Your task to perform on an android device: manage bookmarks in the chrome app Image 0: 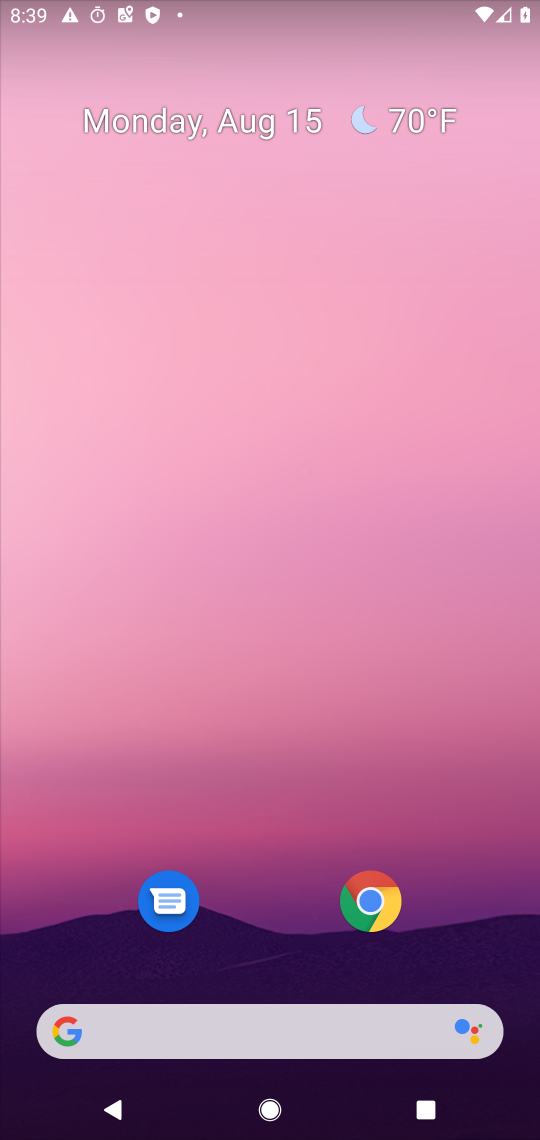
Step 0: click (341, 902)
Your task to perform on an android device: manage bookmarks in the chrome app Image 1: 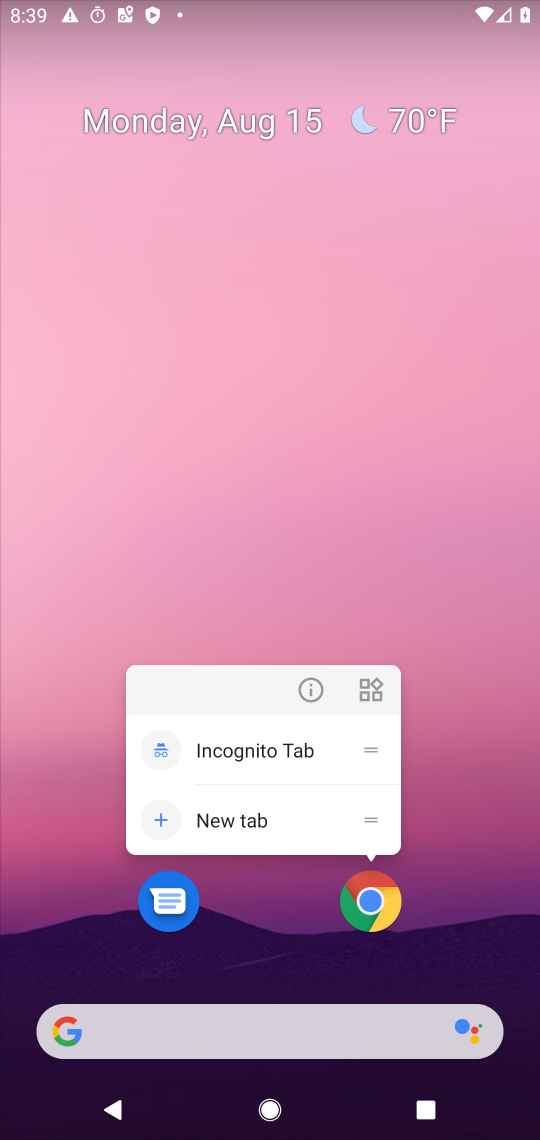
Step 1: click (393, 907)
Your task to perform on an android device: manage bookmarks in the chrome app Image 2: 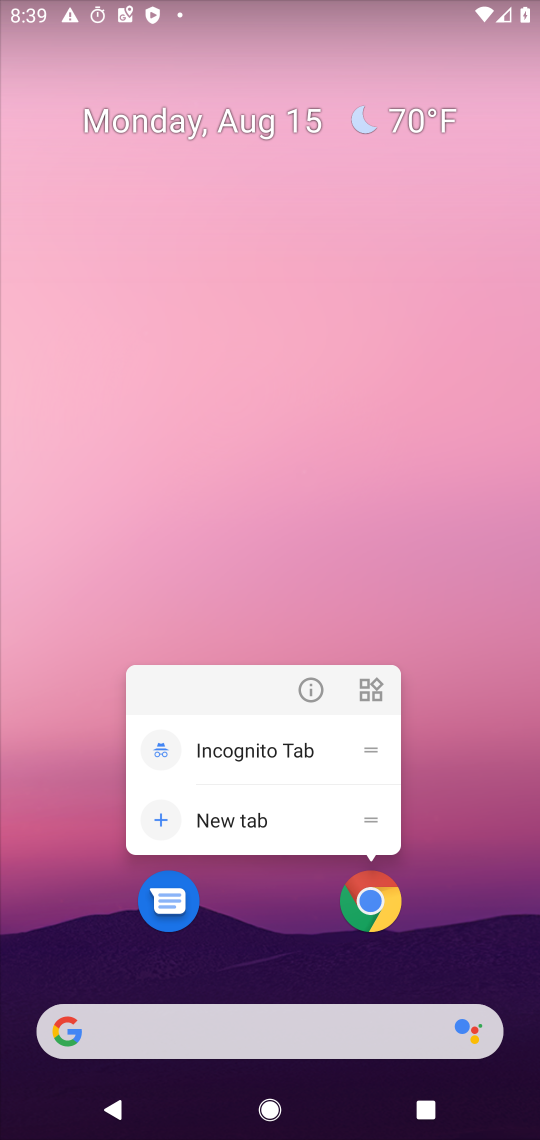
Step 2: click (392, 909)
Your task to perform on an android device: manage bookmarks in the chrome app Image 3: 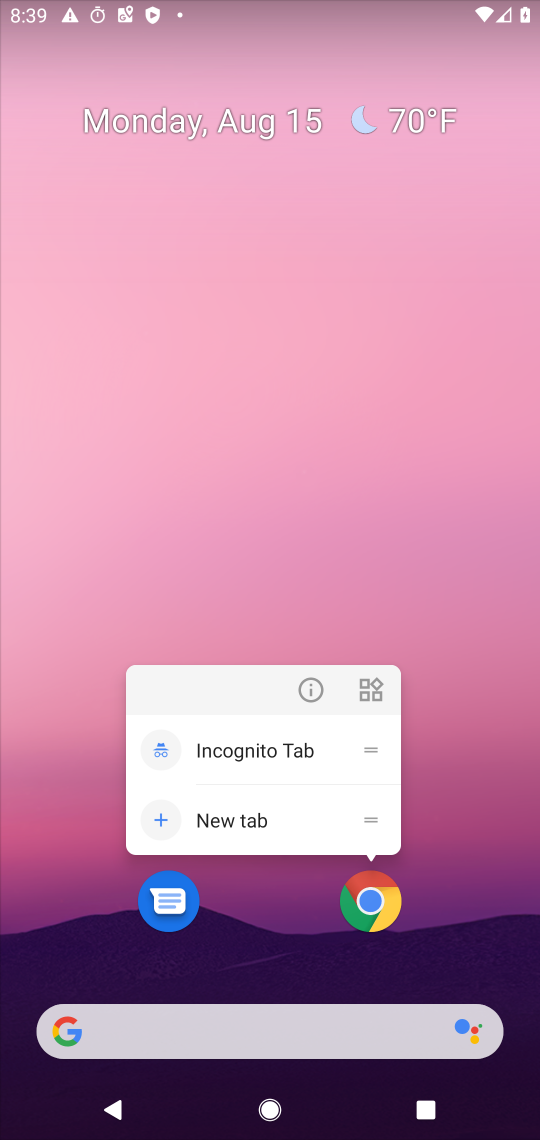
Step 3: click (376, 890)
Your task to perform on an android device: manage bookmarks in the chrome app Image 4: 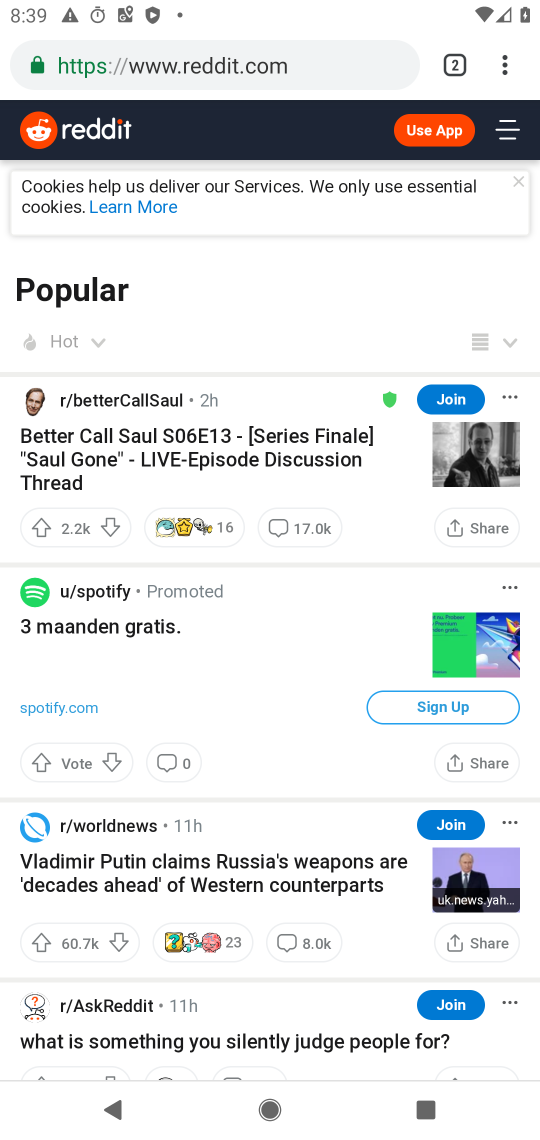
Step 4: click (507, 53)
Your task to perform on an android device: manage bookmarks in the chrome app Image 5: 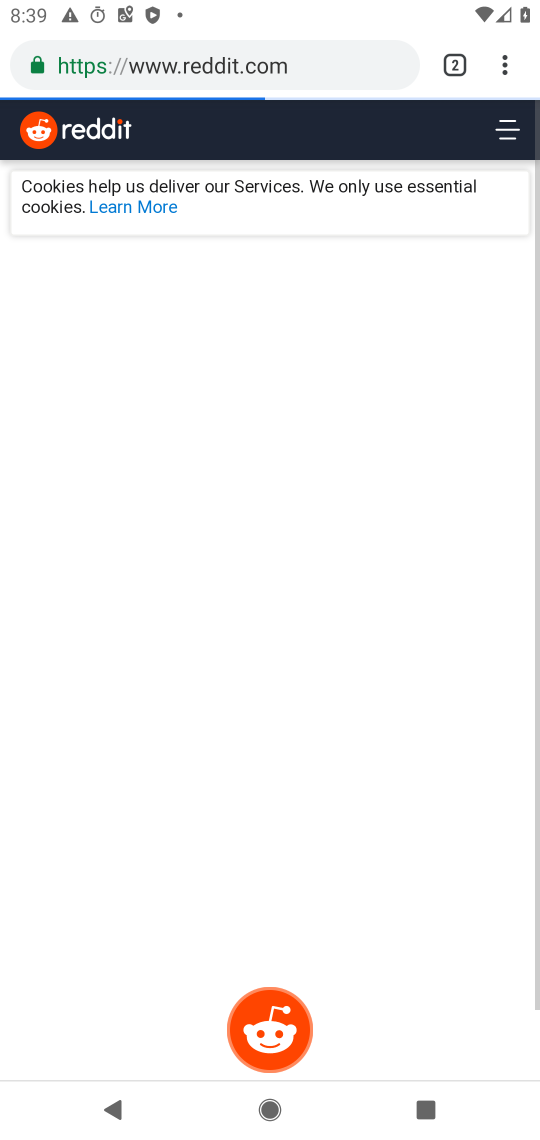
Step 5: click (507, 64)
Your task to perform on an android device: manage bookmarks in the chrome app Image 6: 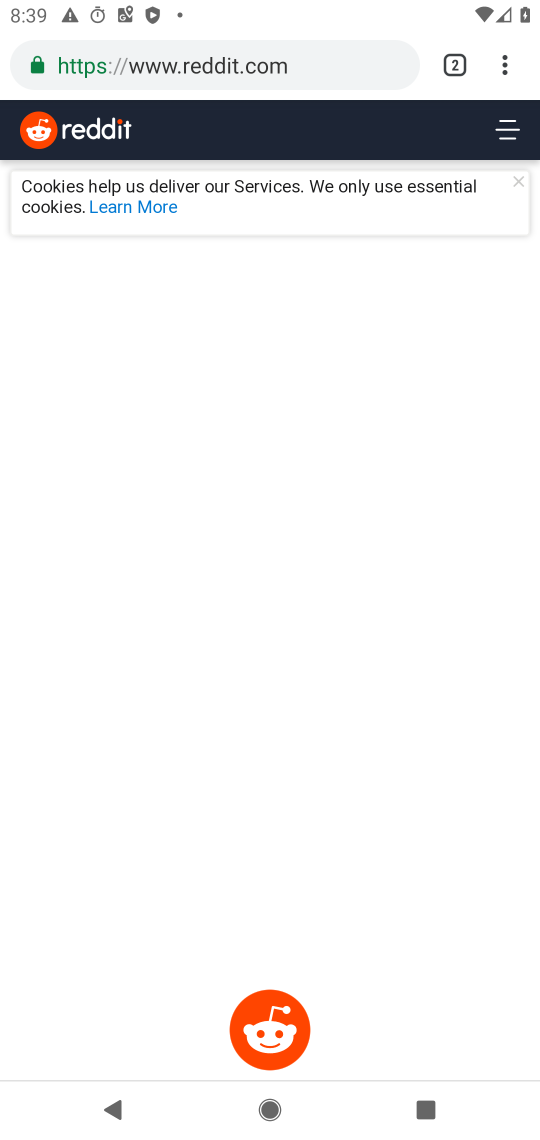
Step 6: click (498, 70)
Your task to perform on an android device: manage bookmarks in the chrome app Image 7: 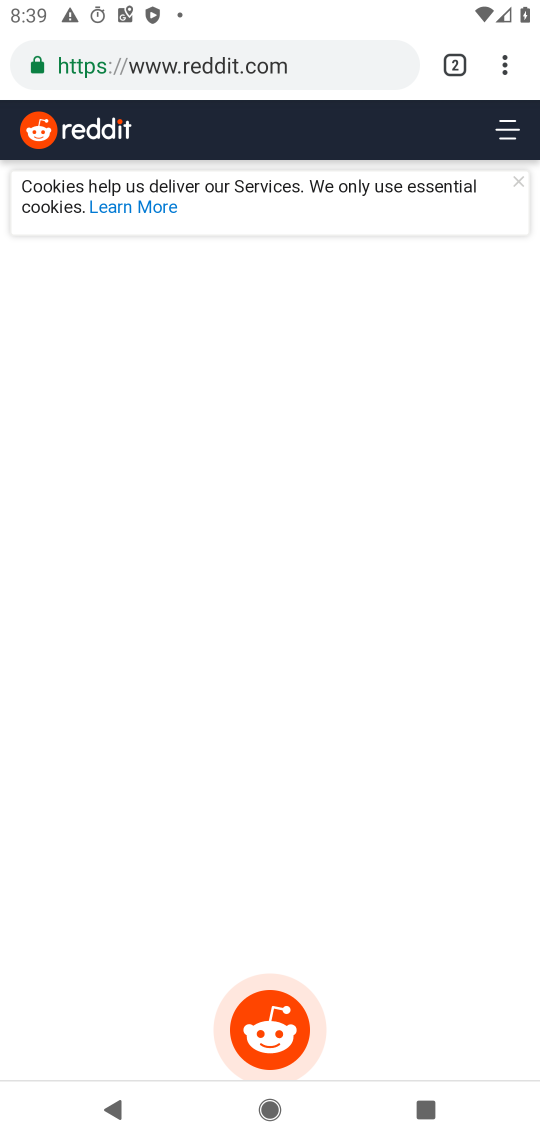
Step 7: click (495, 64)
Your task to perform on an android device: manage bookmarks in the chrome app Image 8: 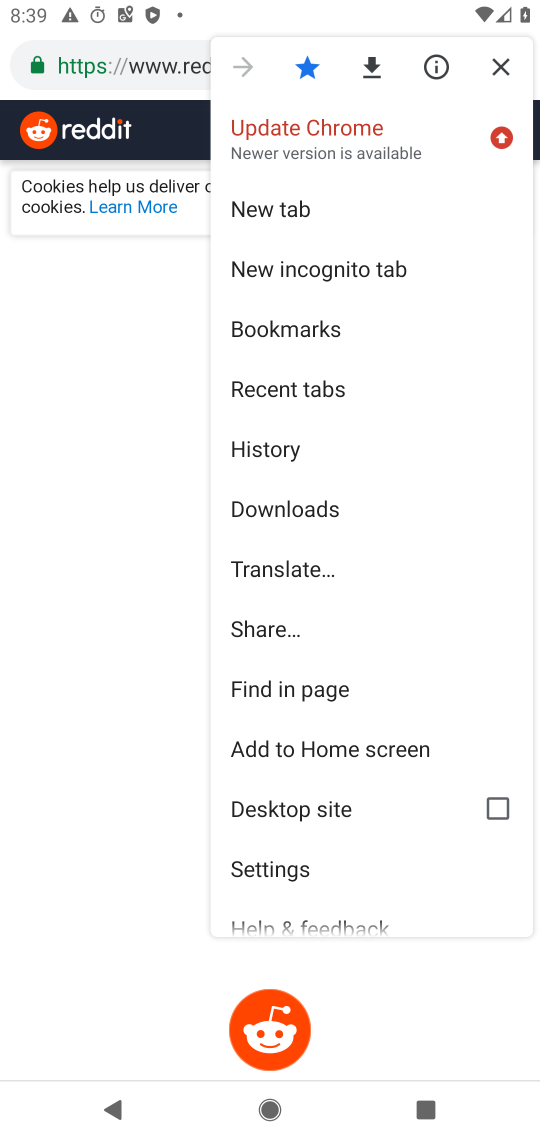
Step 8: click (311, 322)
Your task to perform on an android device: manage bookmarks in the chrome app Image 9: 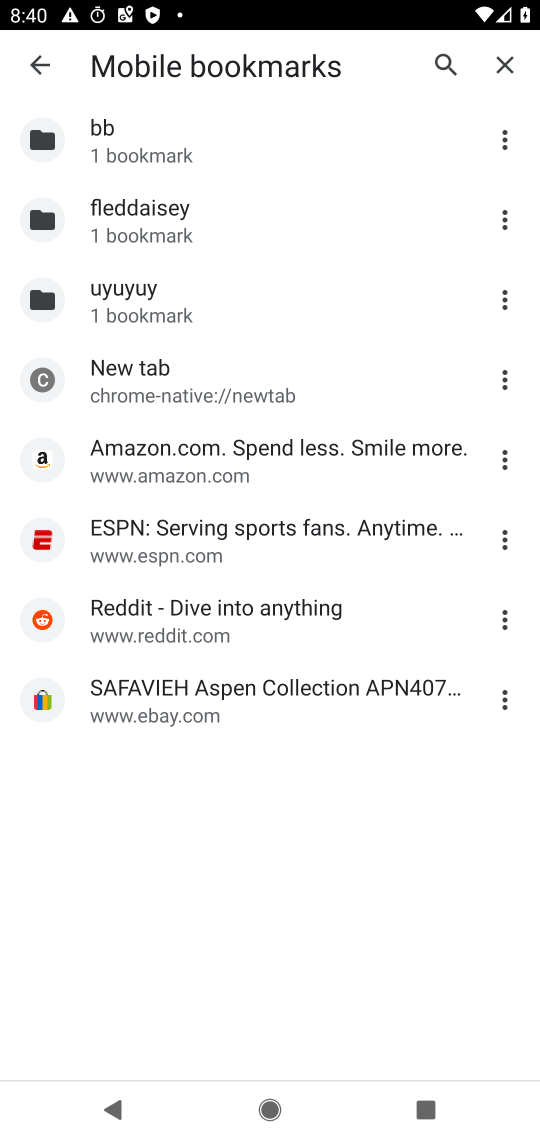
Step 9: click (506, 451)
Your task to perform on an android device: manage bookmarks in the chrome app Image 10: 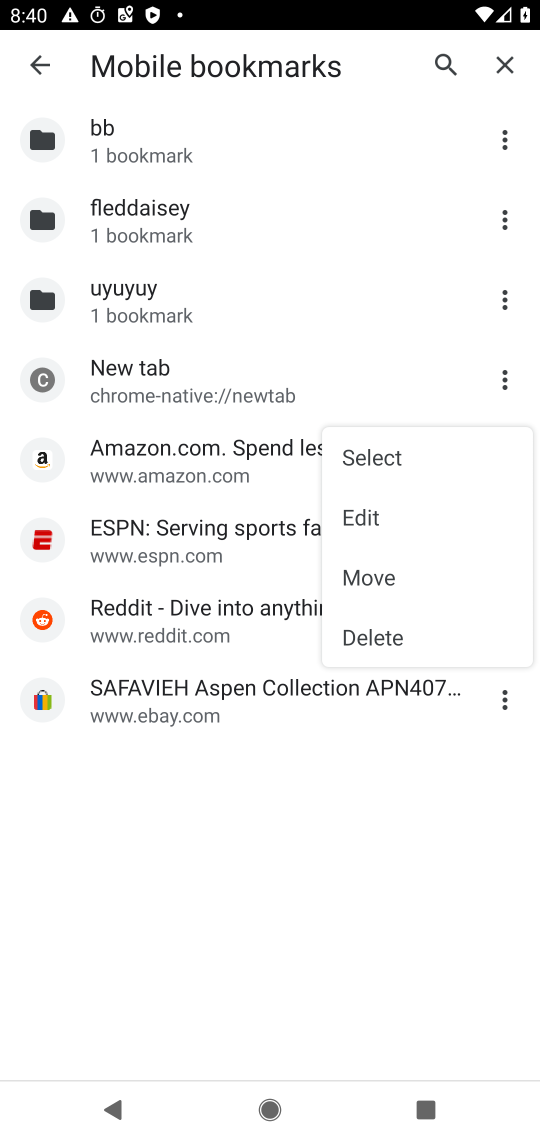
Step 10: click (404, 459)
Your task to perform on an android device: manage bookmarks in the chrome app Image 11: 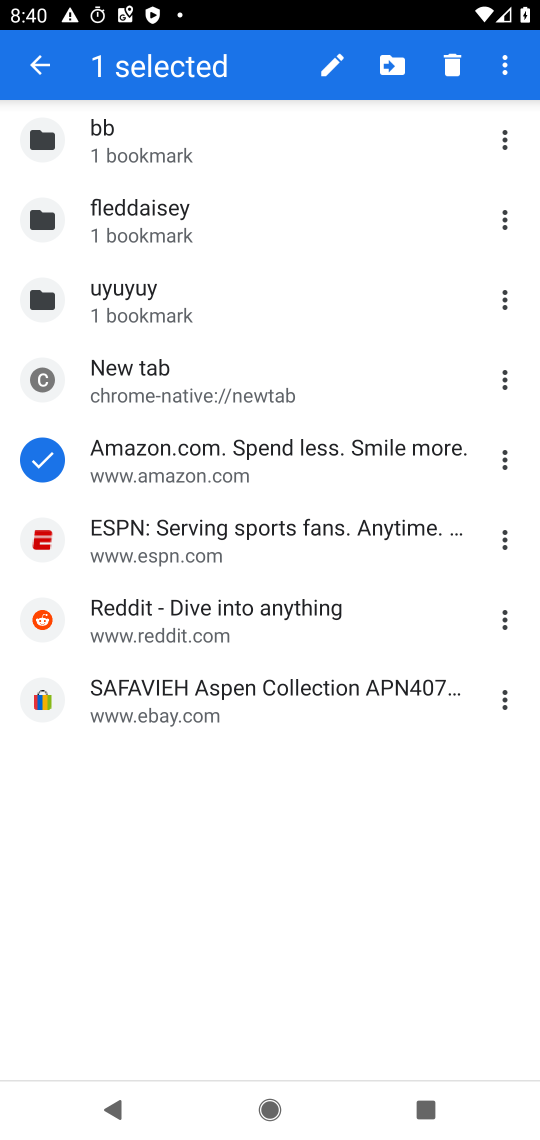
Step 11: click (100, 550)
Your task to perform on an android device: manage bookmarks in the chrome app Image 12: 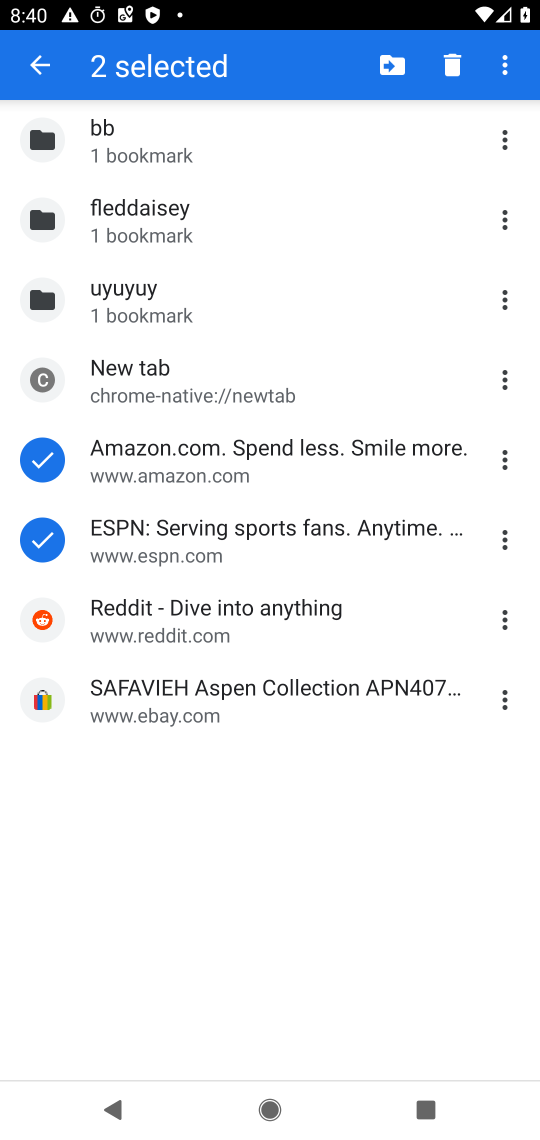
Step 12: click (98, 621)
Your task to perform on an android device: manage bookmarks in the chrome app Image 13: 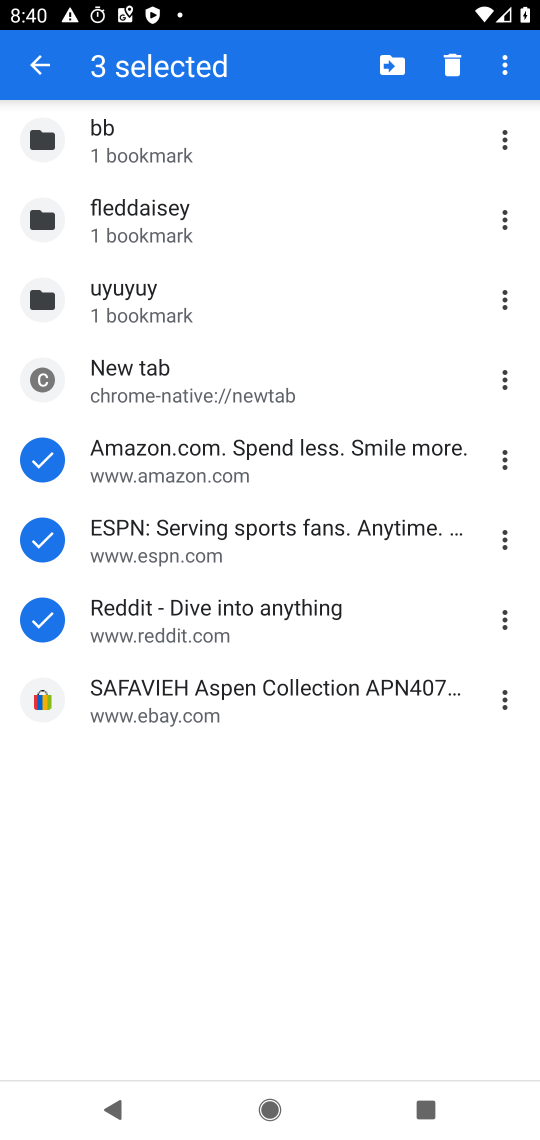
Step 13: click (107, 711)
Your task to perform on an android device: manage bookmarks in the chrome app Image 14: 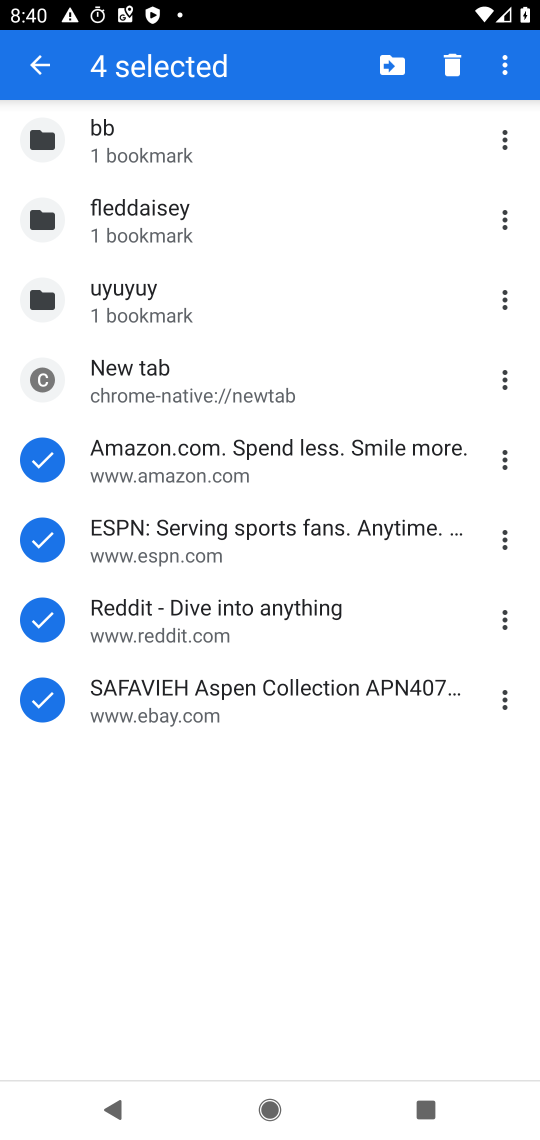
Step 14: click (381, 68)
Your task to perform on an android device: manage bookmarks in the chrome app Image 15: 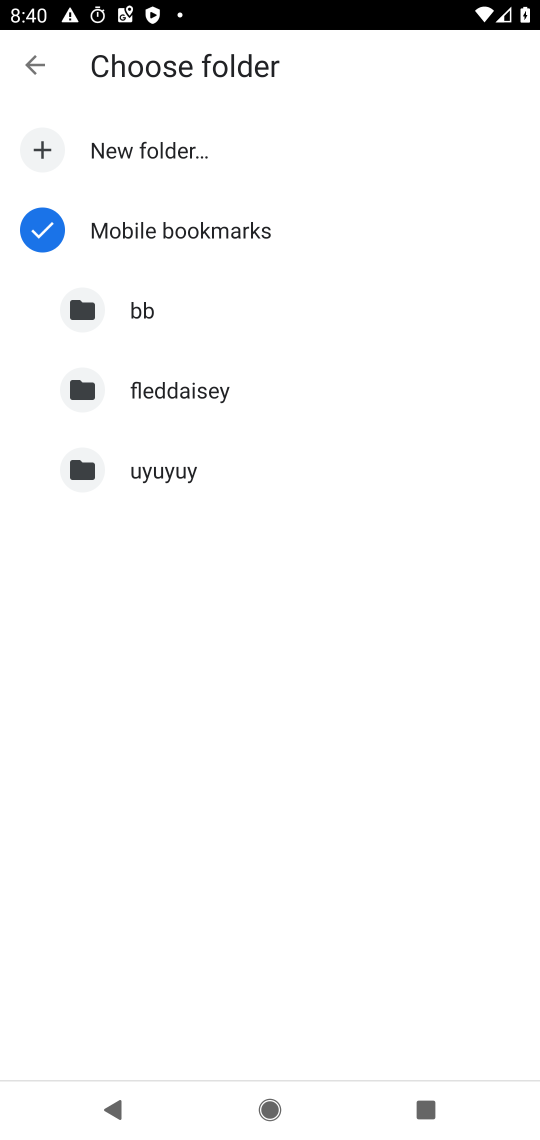
Step 15: click (181, 398)
Your task to perform on an android device: manage bookmarks in the chrome app Image 16: 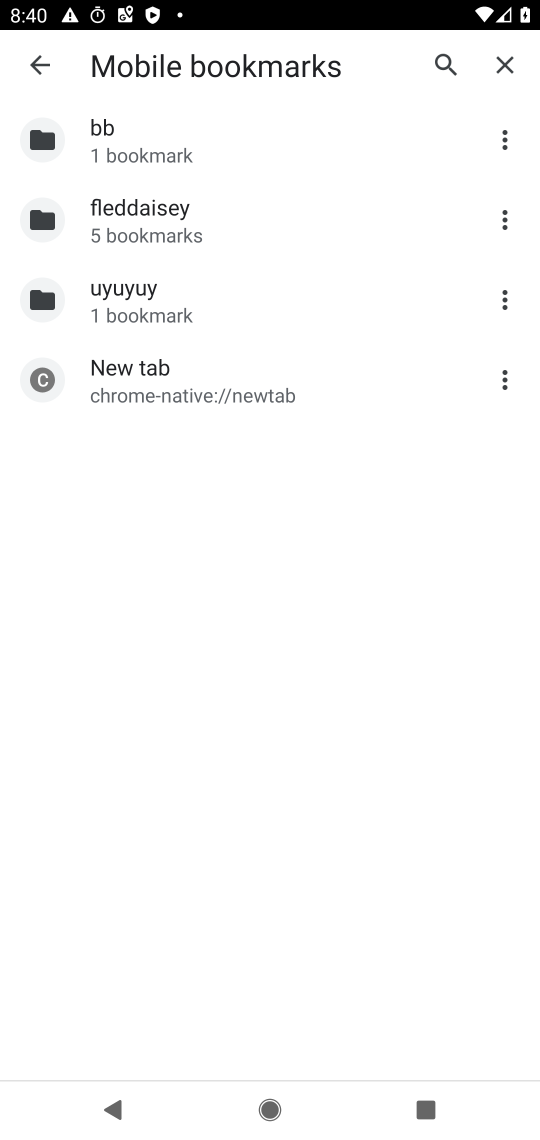
Step 16: task complete